Your task to perform on an android device: create a new album in the google photos Image 0: 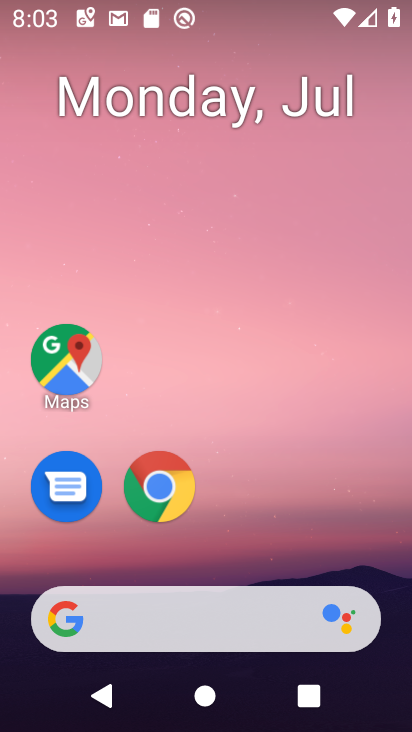
Step 0: drag from (333, 565) to (333, 67)
Your task to perform on an android device: create a new album in the google photos Image 1: 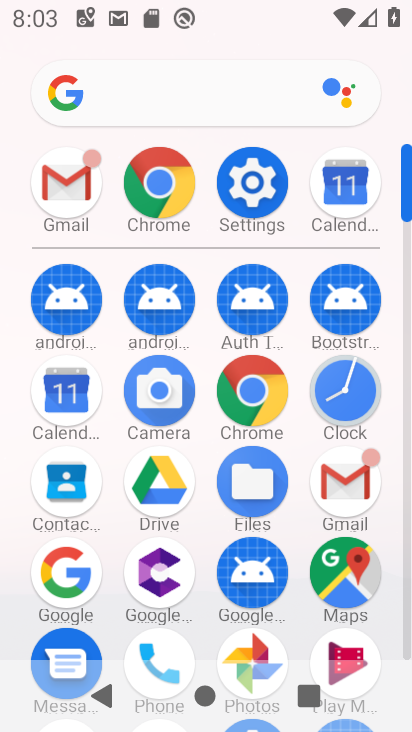
Step 1: drag from (388, 407) to (391, 169)
Your task to perform on an android device: create a new album in the google photos Image 2: 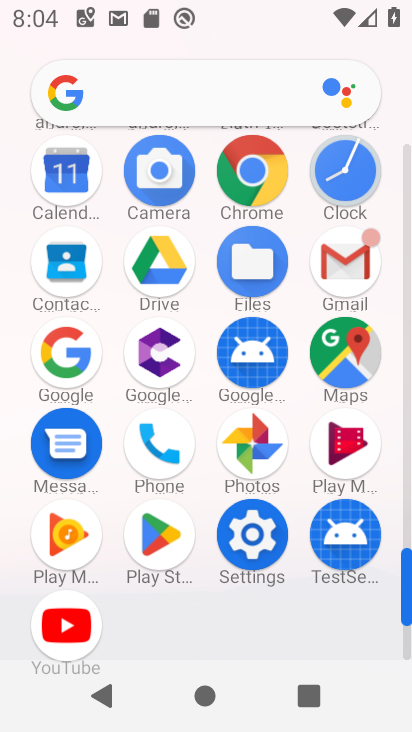
Step 2: click (261, 441)
Your task to perform on an android device: create a new album in the google photos Image 3: 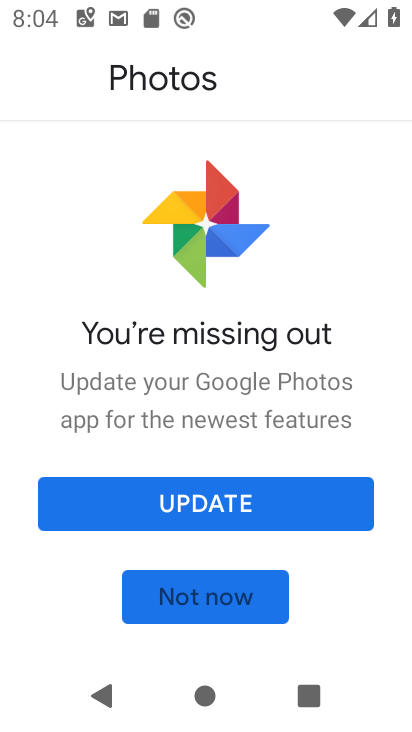
Step 3: click (264, 500)
Your task to perform on an android device: create a new album in the google photos Image 4: 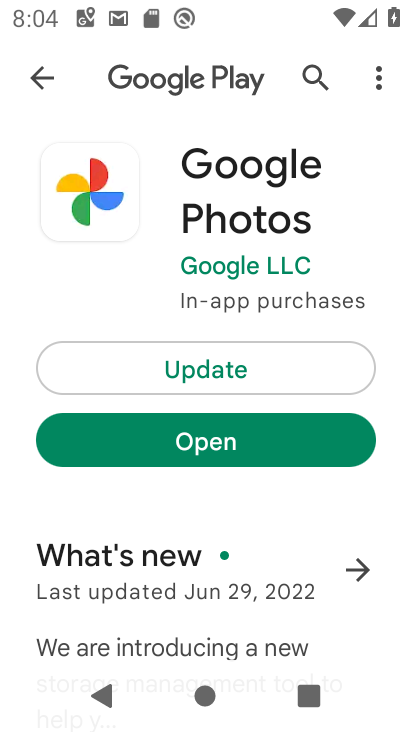
Step 4: click (310, 373)
Your task to perform on an android device: create a new album in the google photos Image 5: 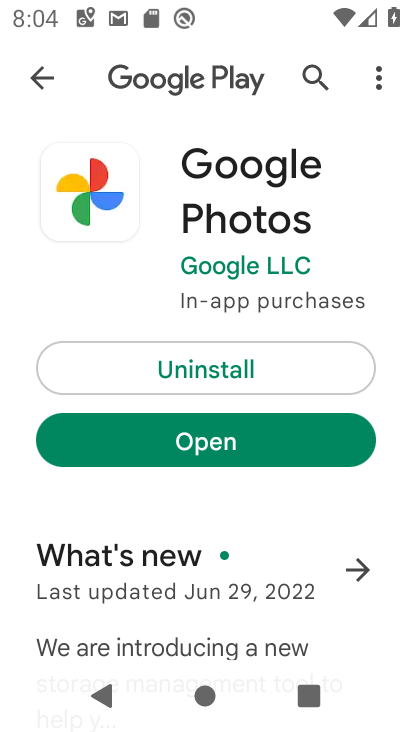
Step 5: click (319, 453)
Your task to perform on an android device: create a new album in the google photos Image 6: 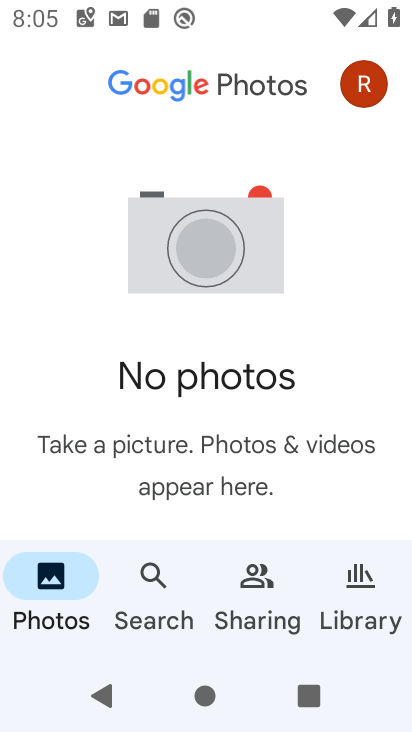
Step 6: click (356, 615)
Your task to perform on an android device: create a new album in the google photos Image 7: 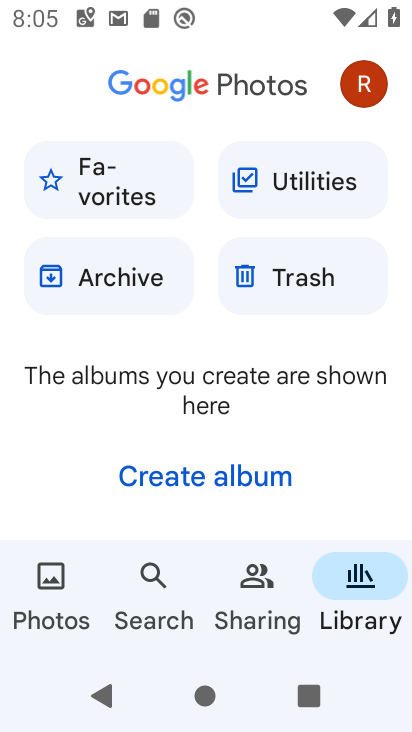
Step 7: click (212, 477)
Your task to perform on an android device: create a new album in the google photos Image 8: 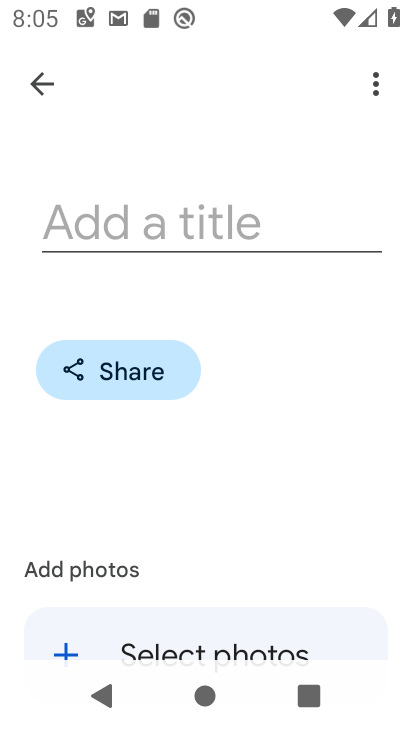
Step 8: click (226, 222)
Your task to perform on an android device: create a new album in the google photos Image 9: 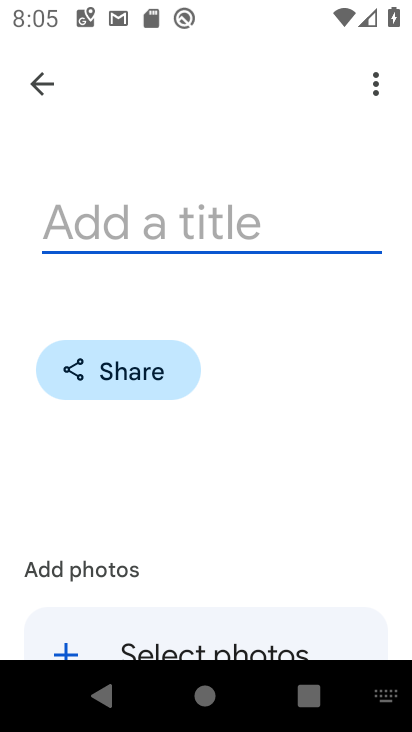
Step 9: type "fav"
Your task to perform on an android device: create a new album in the google photos Image 10: 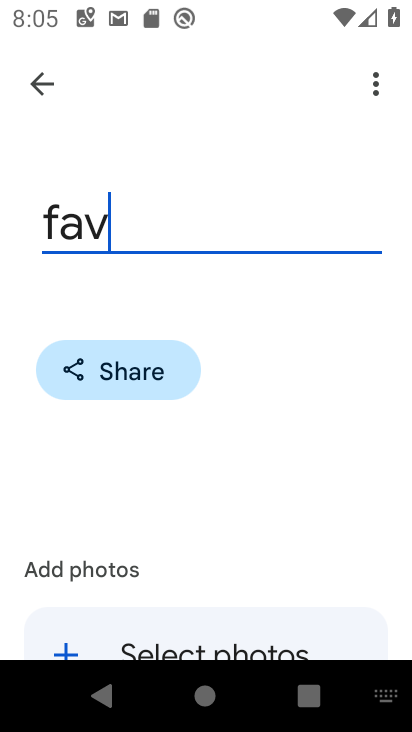
Step 10: drag from (296, 447) to (303, 221)
Your task to perform on an android device: create a new album in the google photos Image 11: 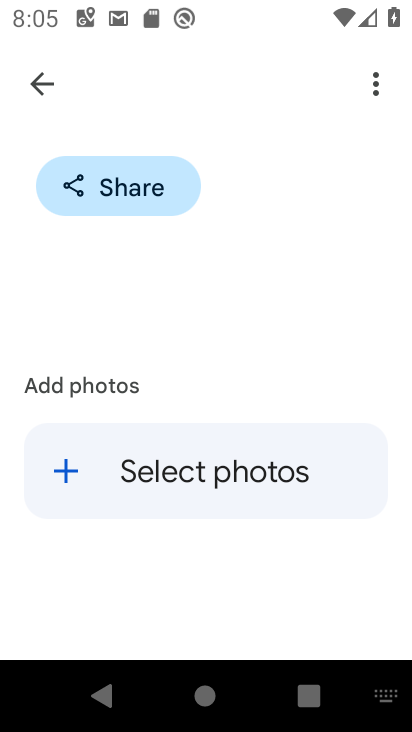
Step 11: click (96, 461)
Your task to perform on an android device: create a new album in the google photos Image 12: 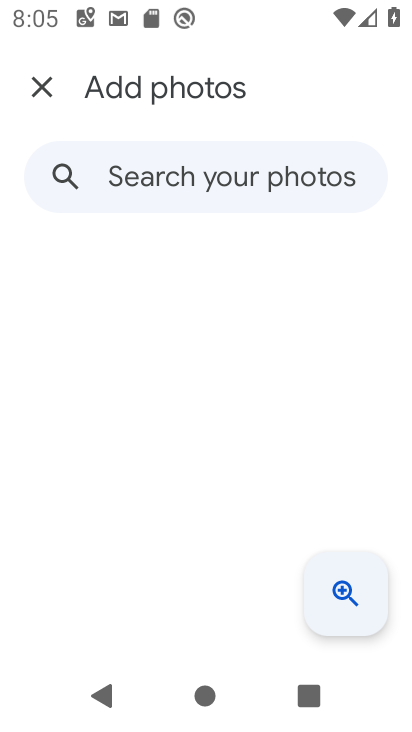
Step 12: task complete